Your task to perform on an android device: check storage Image 0: 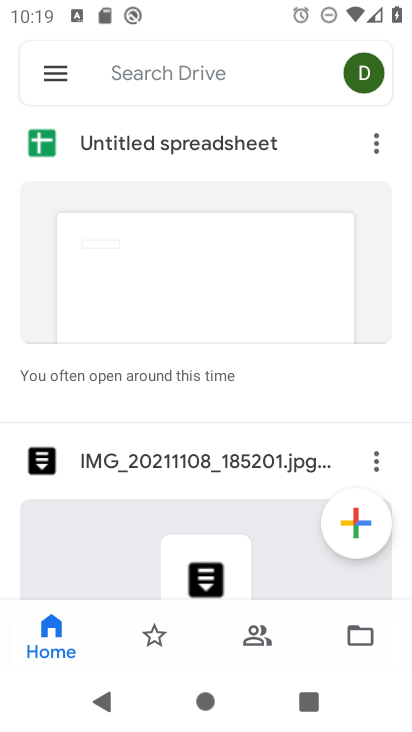
Step 0: press home button
Your task to perform on an android device: check storage Image 1: 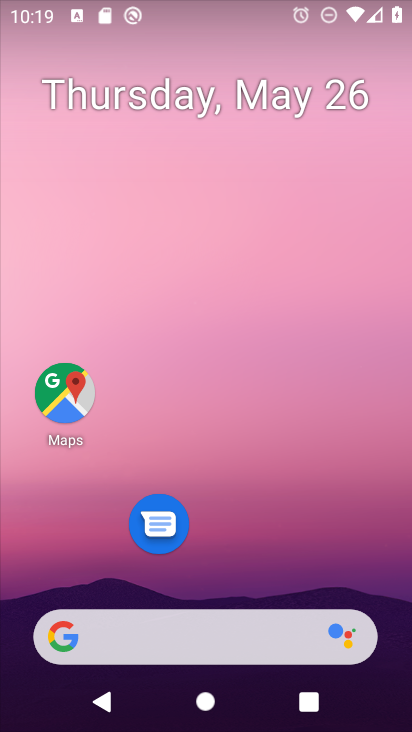
Step 1: drag from (269, 509) to (269, 21)
Your task to perform on an android device: check storage Image 2: 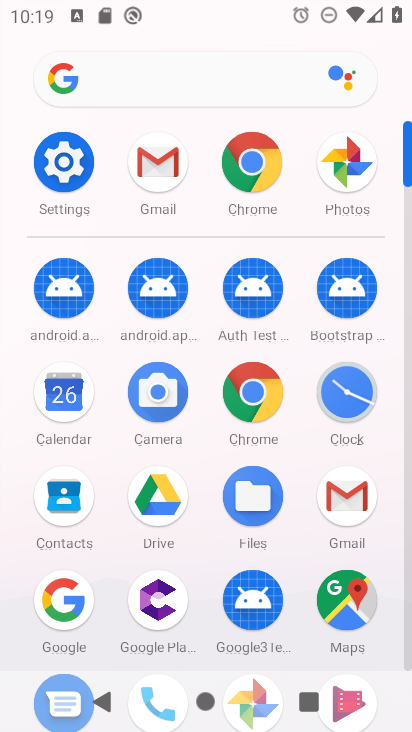
Step 2: click (66, 146)
Your task to perform on an android device: check storage Image 3: 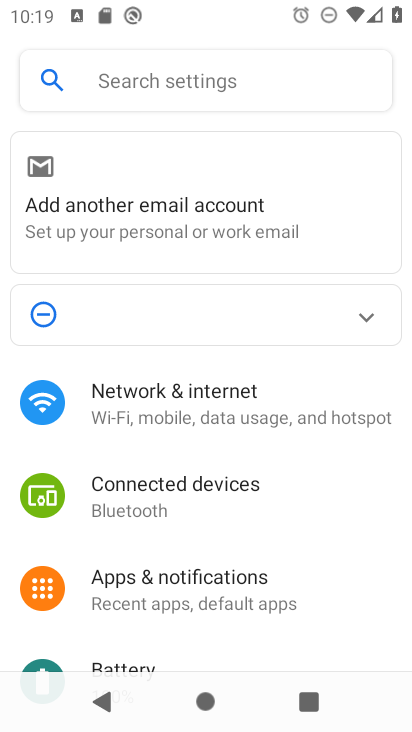
Step 3: drag from (244, 547) to (268, 0)
Your task to perform on an android device: check storage Image 4: 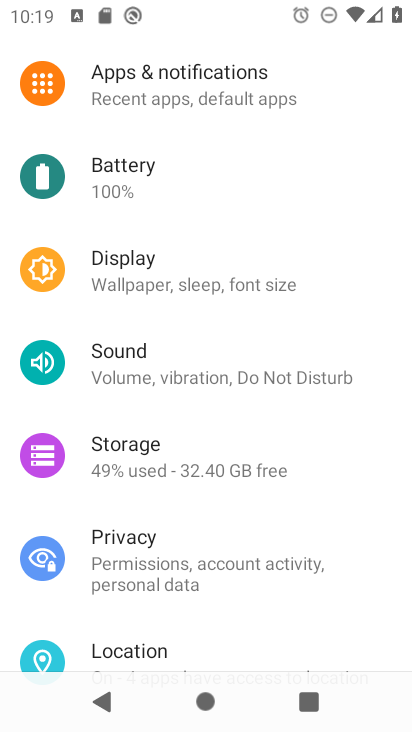
Step 4: click (220, 467)
Your task to perform on an android device: check storage Image 5: 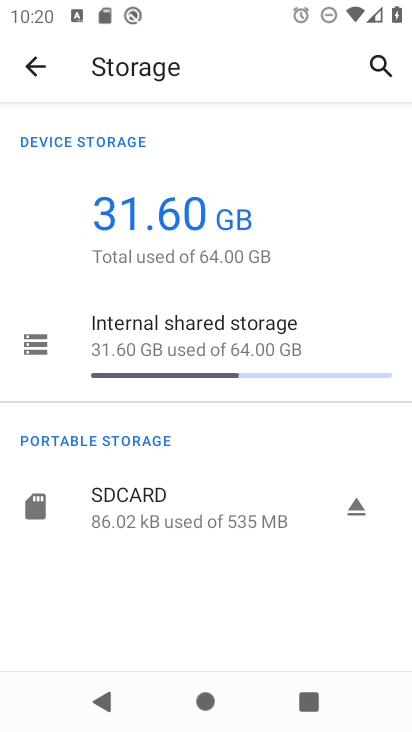
Step 5: task complete